Your task to perform on an android device: Go to internet settings Image 0: 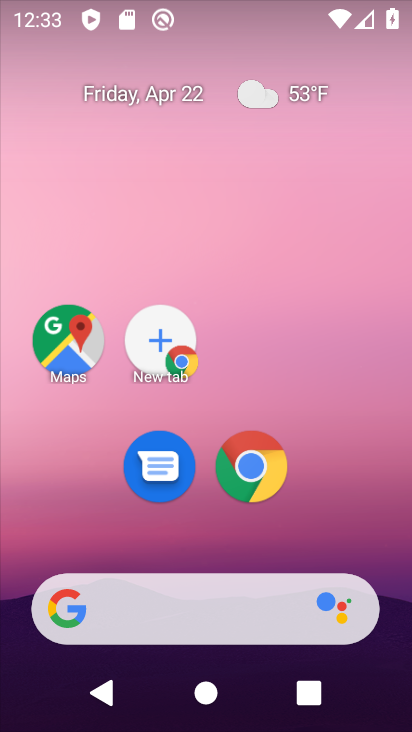
Step 0: drag from (369, 539) to (267, 6)
Your task to perform on an android device: Go to internet settings Image 1: 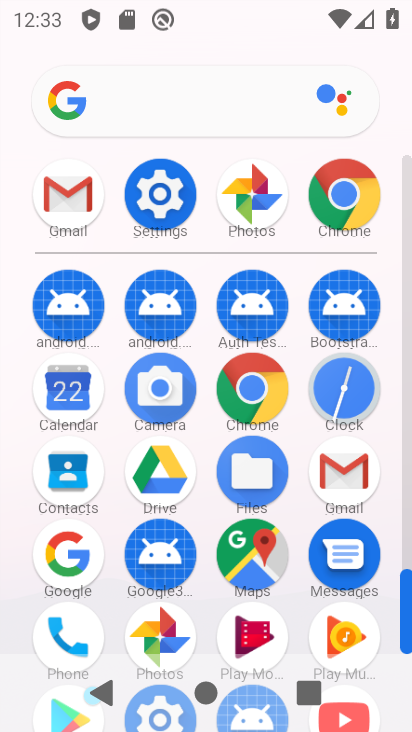
Step 1: click (158, 186)
Your task to perform on an android device: Go to internet settings Image 2: 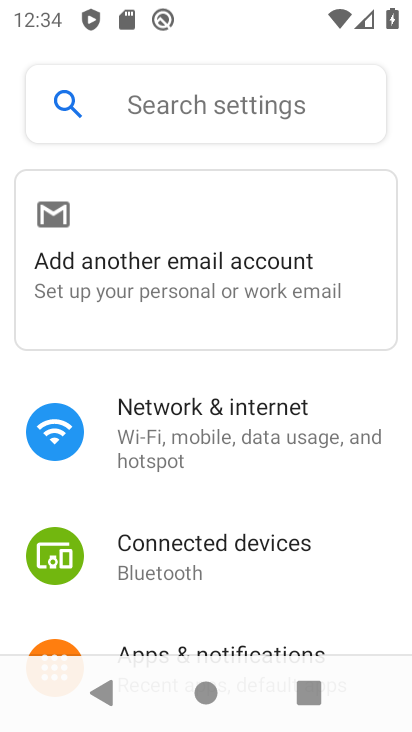
Step 2: click (217, 436)
Your task to perform on an android device: Go to internet settings Image 3: 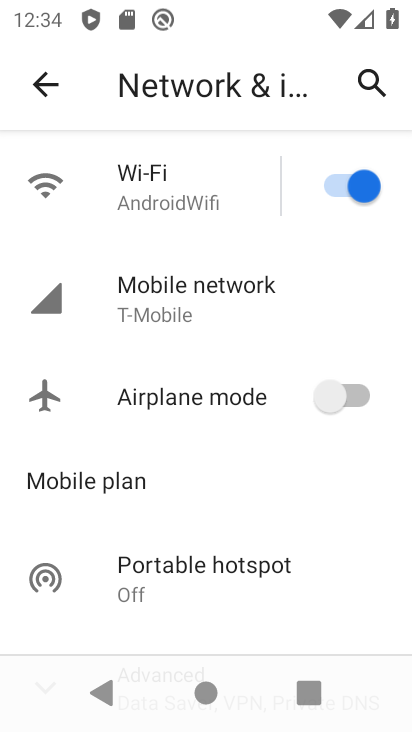
Step 3: drag from (179, 502) to (175, 227)
Your task to perform on an android device: Go to internet settings Image 4: 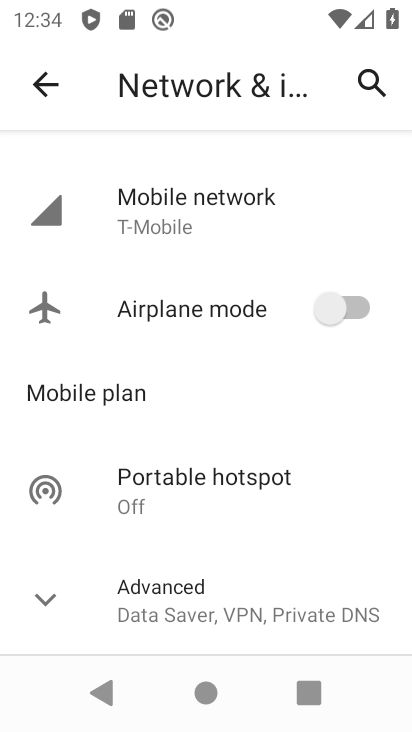
Step 4: drag from (175, 144) to (195, 514)
Your task to perform on an android device: Go to internet settings Image 5: 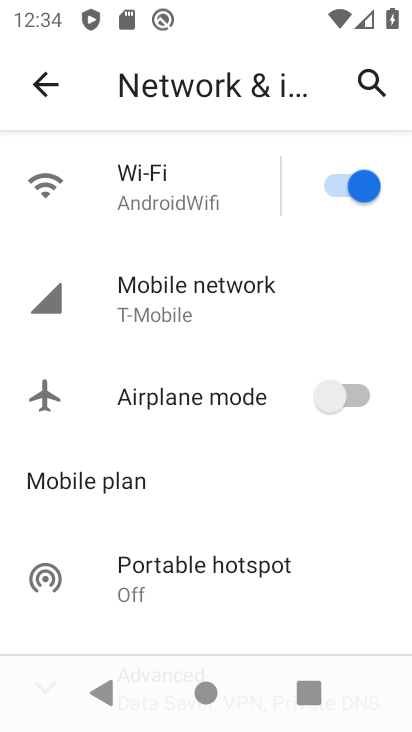
Step 5: drag from (114, 561) to (185, 269)
Your task to perform on an android device: Go to internet settings Image 6: 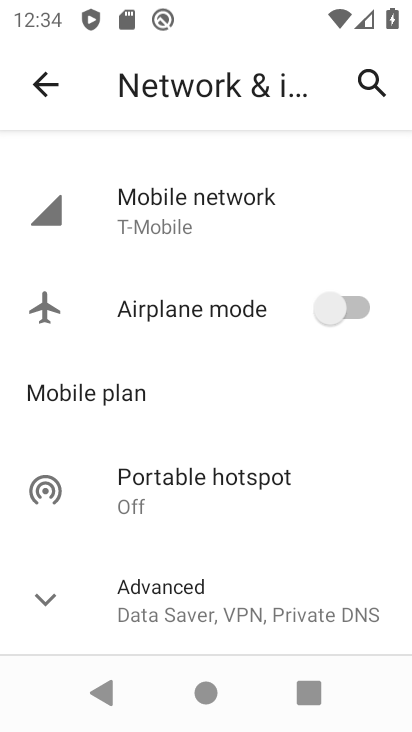
Step 6: click (39, 601)
Your task to perform on an android device: Go to internet settings Image 7: 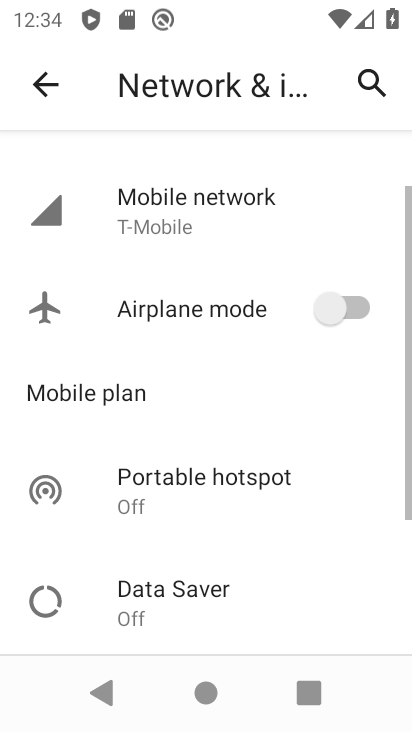
Step 7: task complete